Your task to perform on an android device: Go to Yahoo.com Image 0: 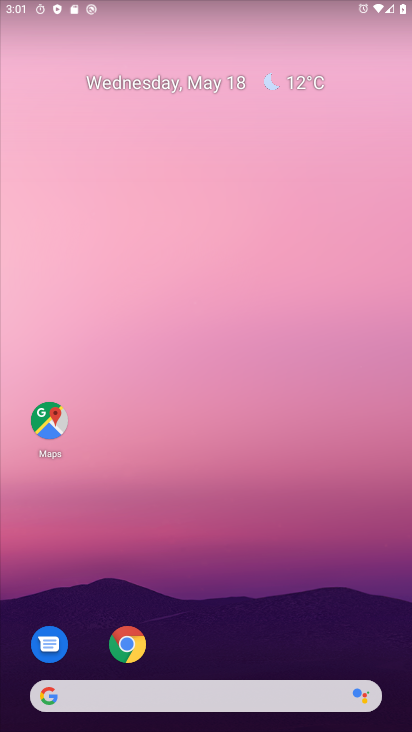
Step 0: click (134, 643)
Your task to perform on an android device: Go to Yahoo.com Image 1: 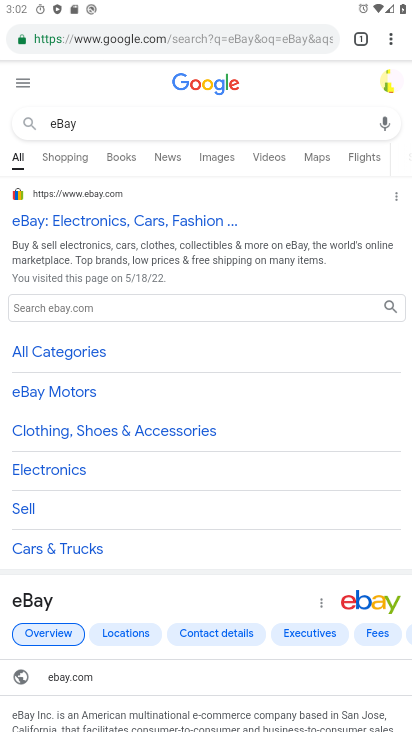
Step 1: click (335, 38)
Your task to perform on an android device: Go to Yahoo.com Image 2: 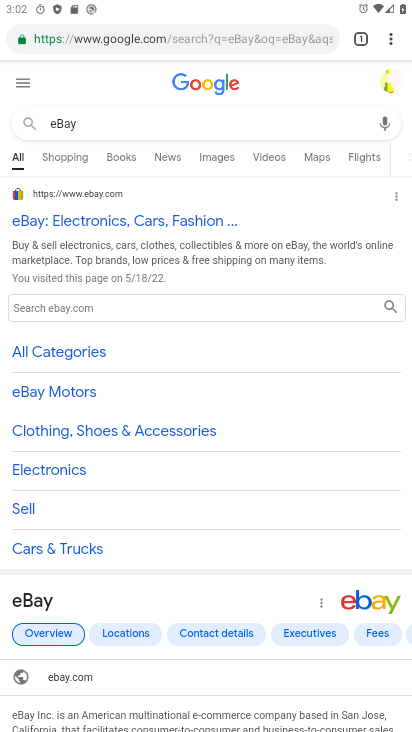
Step 2: click (325, 33)
Your task to perform on an android device: Go to Yahoo.com Image 3: 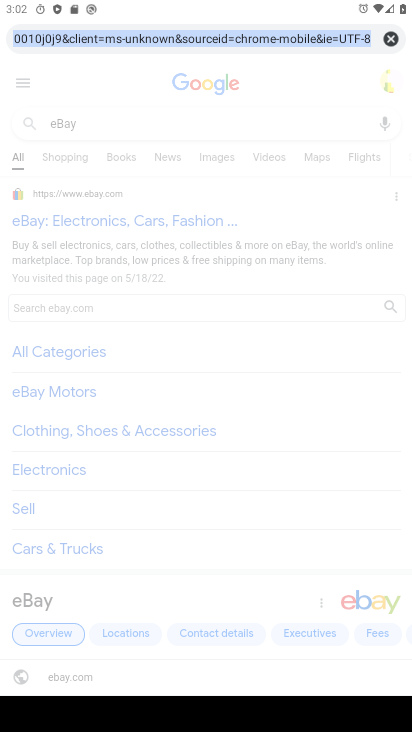
Step 3: click (389, 40)
Your task to perform on an android device: Go to Yahoo.com Image 4: 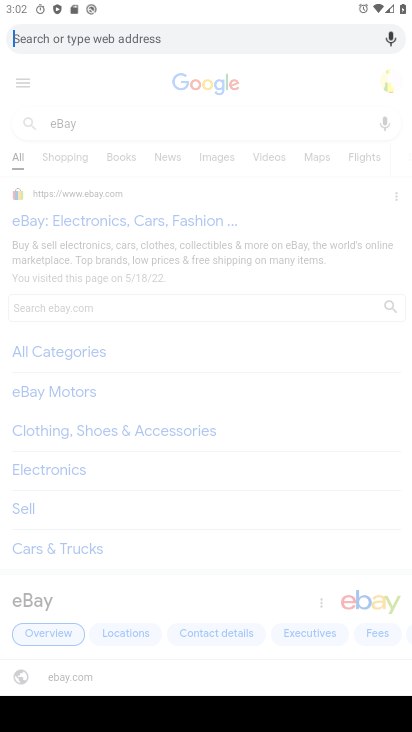
Step 4: type "Yahoo.com"
Your task to perform on an android device: Go to Yahoo.com Image 5: 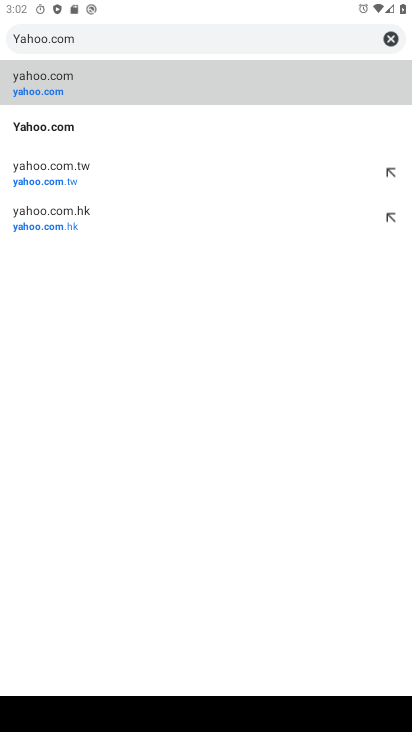
Step 5: click (58, 130)
Your task to perform on an android device: Go to Yahoo.com Image 6: 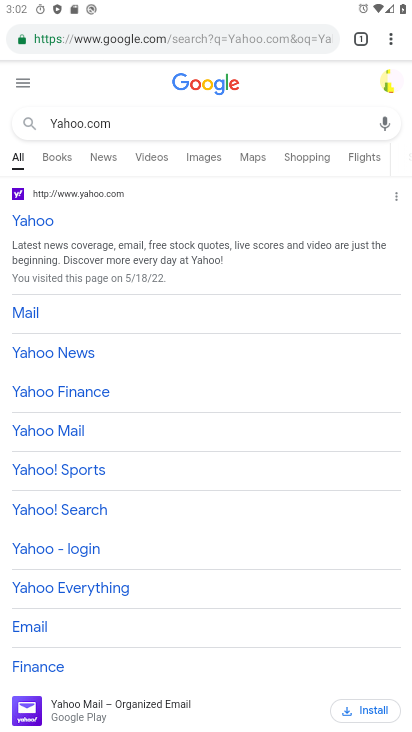
Step 6: task complete